Your task to perform on an android device: snooze an email in the gmail app Image 0: 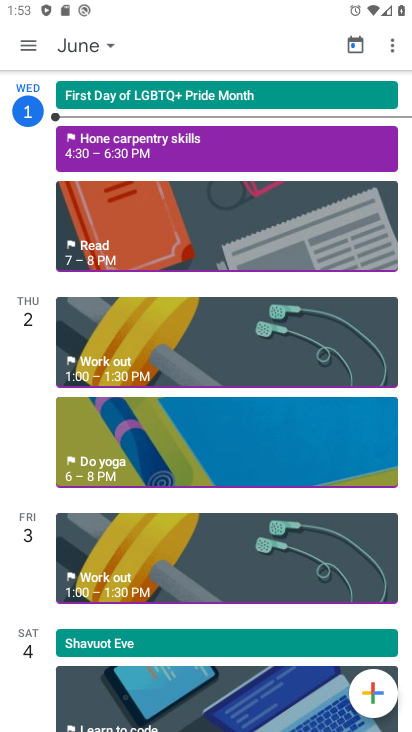
Step 0: press home button
Your task to perform on an android device: snooze an email in the gmail app Image 1: 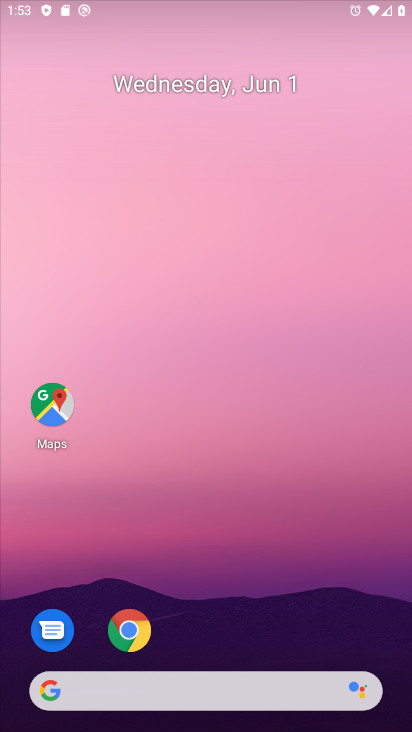
Step 1: drag from (318, 614) to (364, 149)
Your task to perform on an android device: snooze an email in the gmail app Image 2: 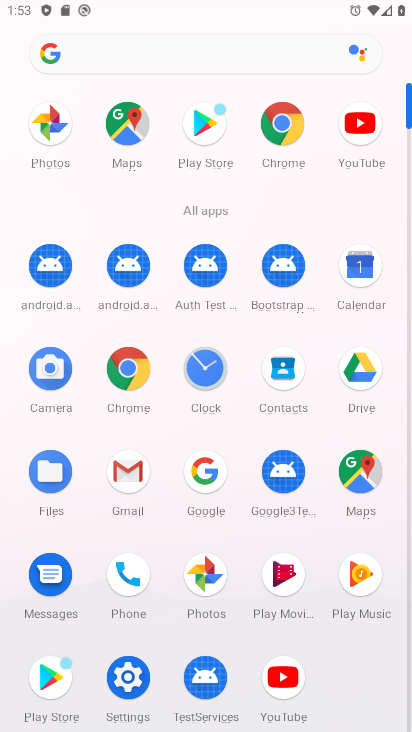
Step 2: click (140, 464)
Your task to perform on an android device: snooze an email in the gmail app Image 3: 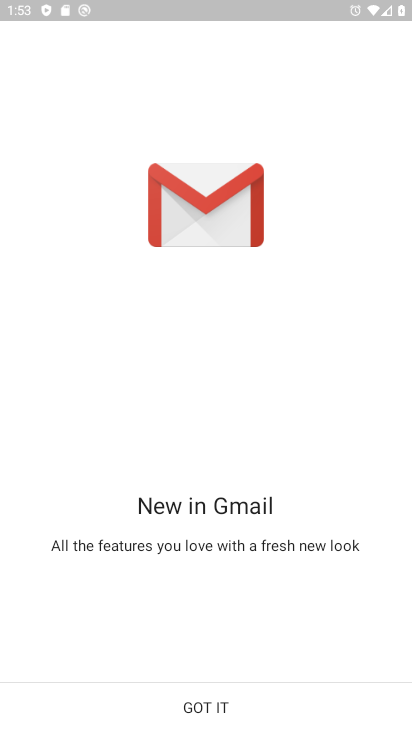
Step 3: click (205, 711)
Your task to perform on an android device: snooze an email in the gmail app Image 4: 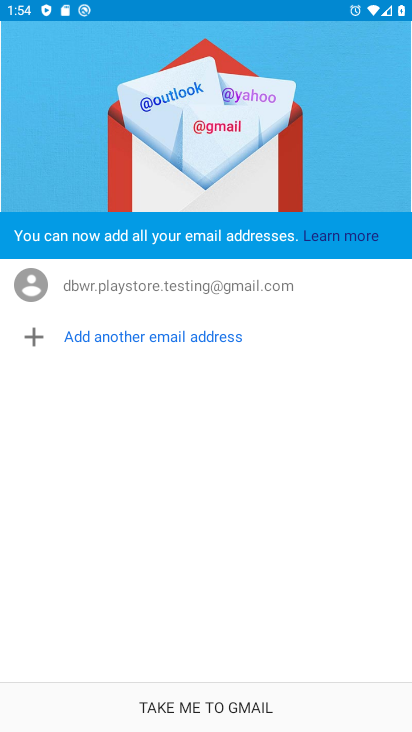
Step 4: click (205, 711)
Your task to perform on an android device: snooze an email in the gmail app Image 5: 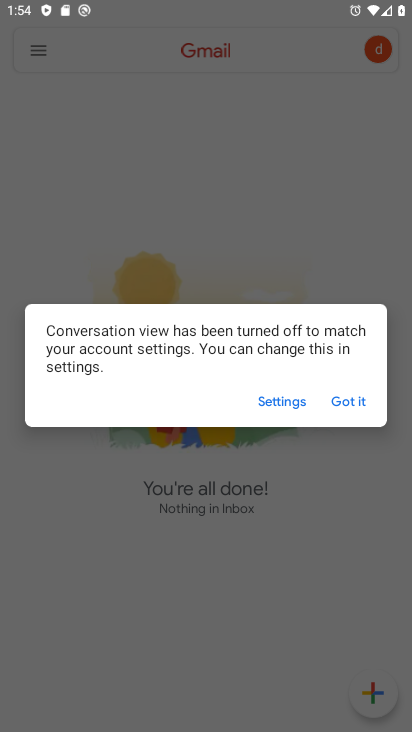
Step 5: click (340, 401)
Your task to perform on an android device: snooze an email in the gmail app Image 6: 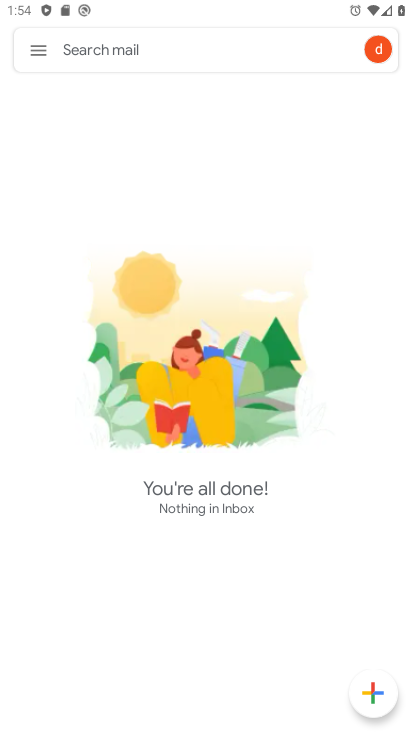
Step 6: click (30, 51)
Your task to perform on an android device: snooze an email in the gmail app Image 7: 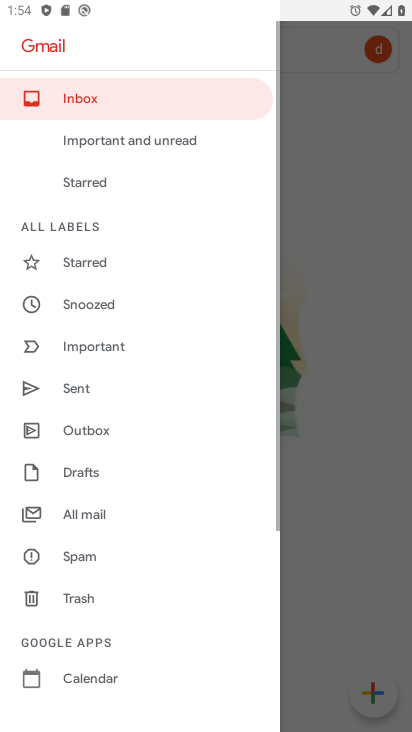
Step 7: click (101, 308)
Your task to perform on an android device: snooze an email in the gmail app Image 8: 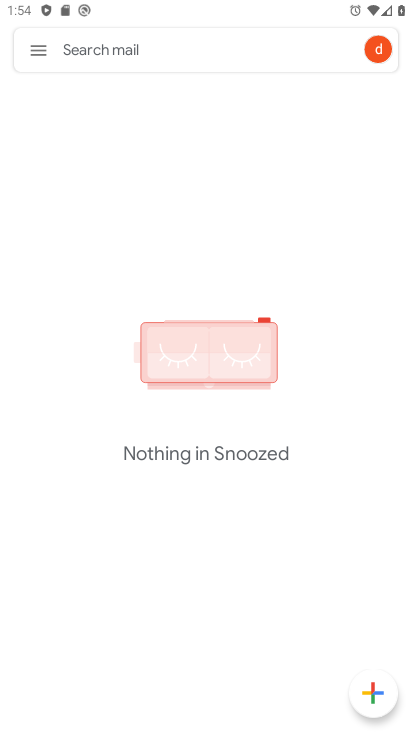
Step 8: task complete